Your task to perform on an android device: Open privacy settings Image 0: 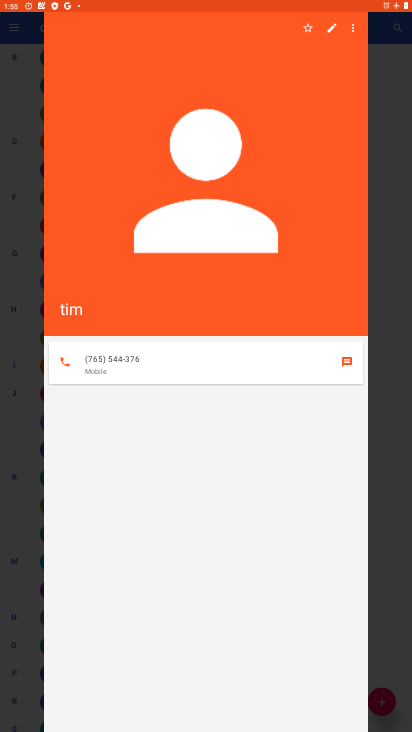
Step 0: press home button
Your task to perform on an android device: Open privacy settings Image 1: 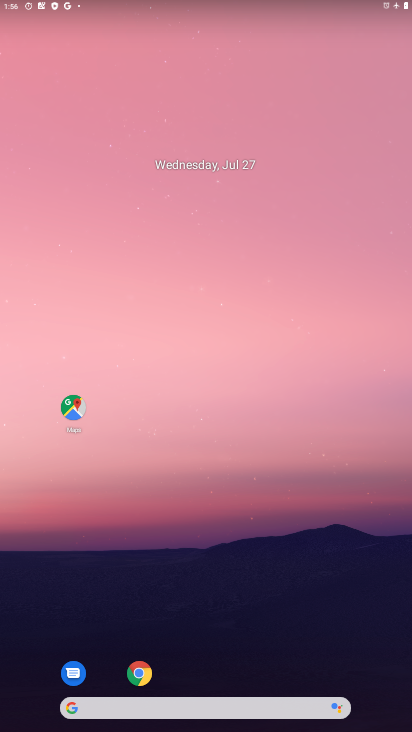
Step 1: drag from (240, 675) to (257, 73)
Your task to perform on an android device: Open privacy settings Image 2: 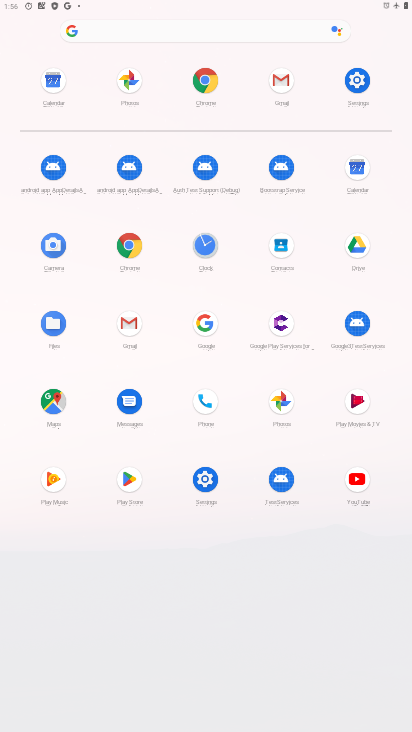
Step 2: click (357, 77)
Your task to perform on an android device: Open privacy settings Image 3: 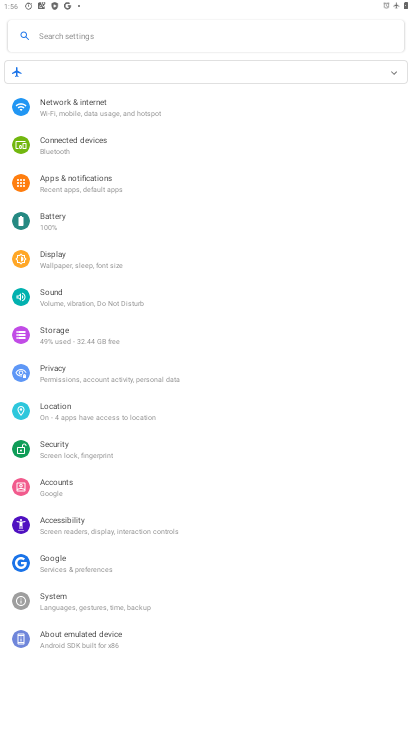
Step 3: click (48, 374)
Your task to perform on an android device: Open privacy settings Image 4: 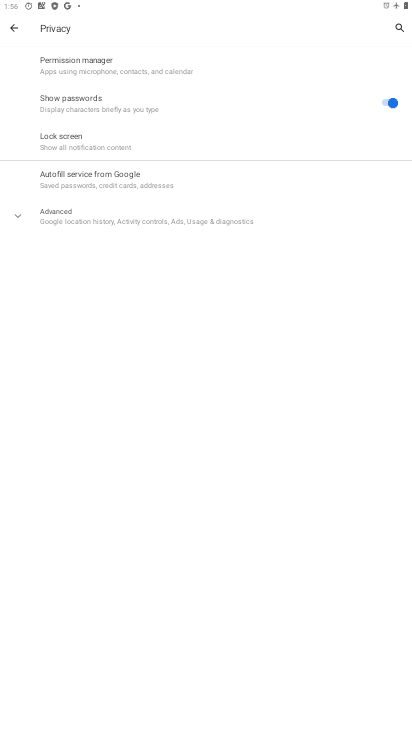
Step 4: task complete